Your task to perform on an android device: Clear the shopping cart on target. Add "razer thresher" to the cart on target Image 0: 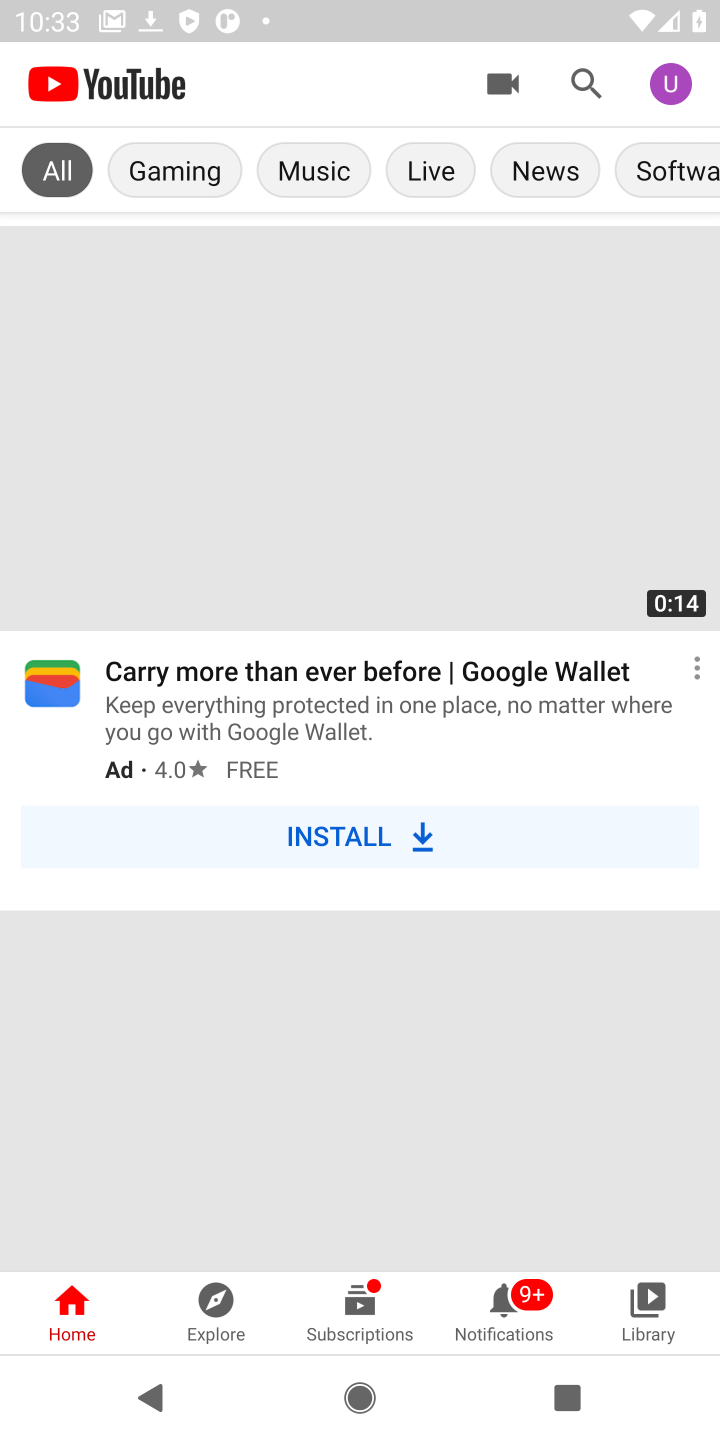
Step 0: press home button
Your task to perform on an android device: Clear the shopping cart on target. Add "razer thresher" to the cart on target Image 1: 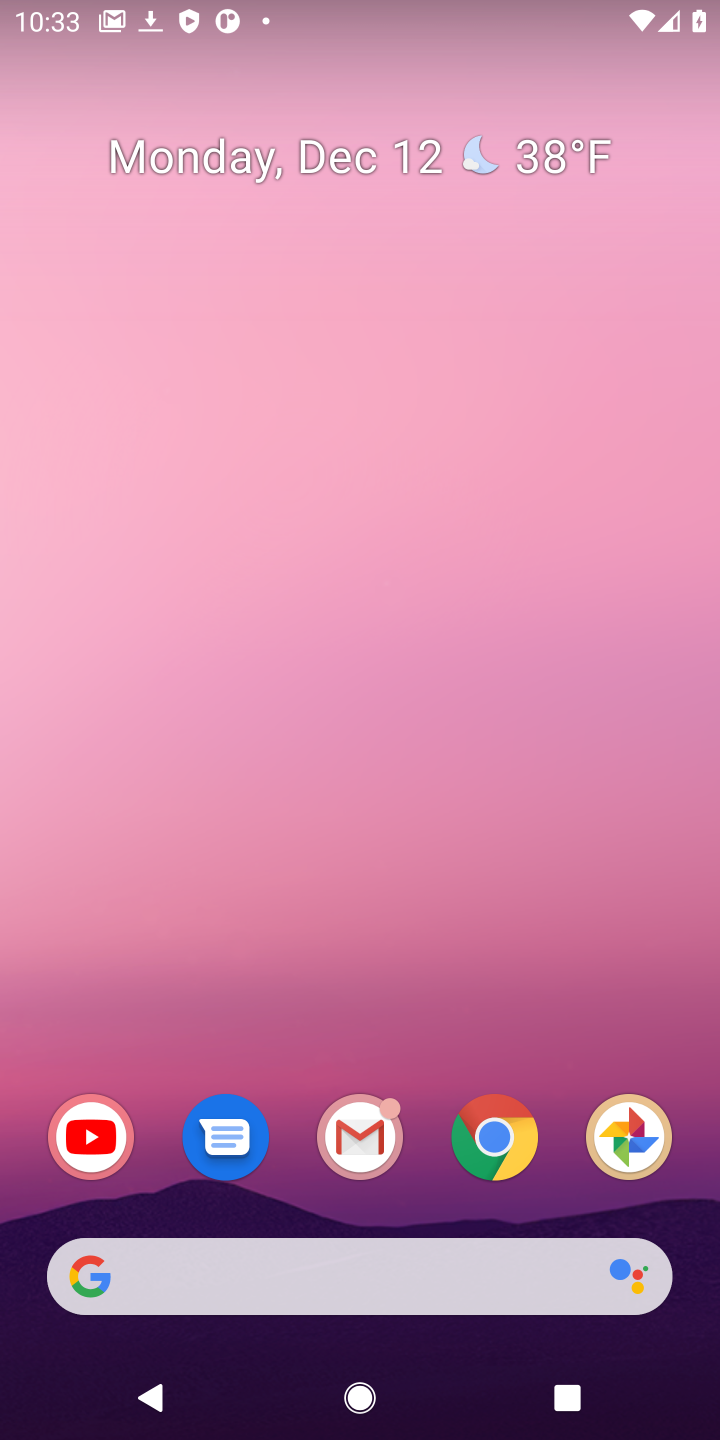
Step 1: click (483, 1261)
Your task to perform on an android device: Clear the shopping cart on target. Add "razer thresher" to the cart on target Image 2: 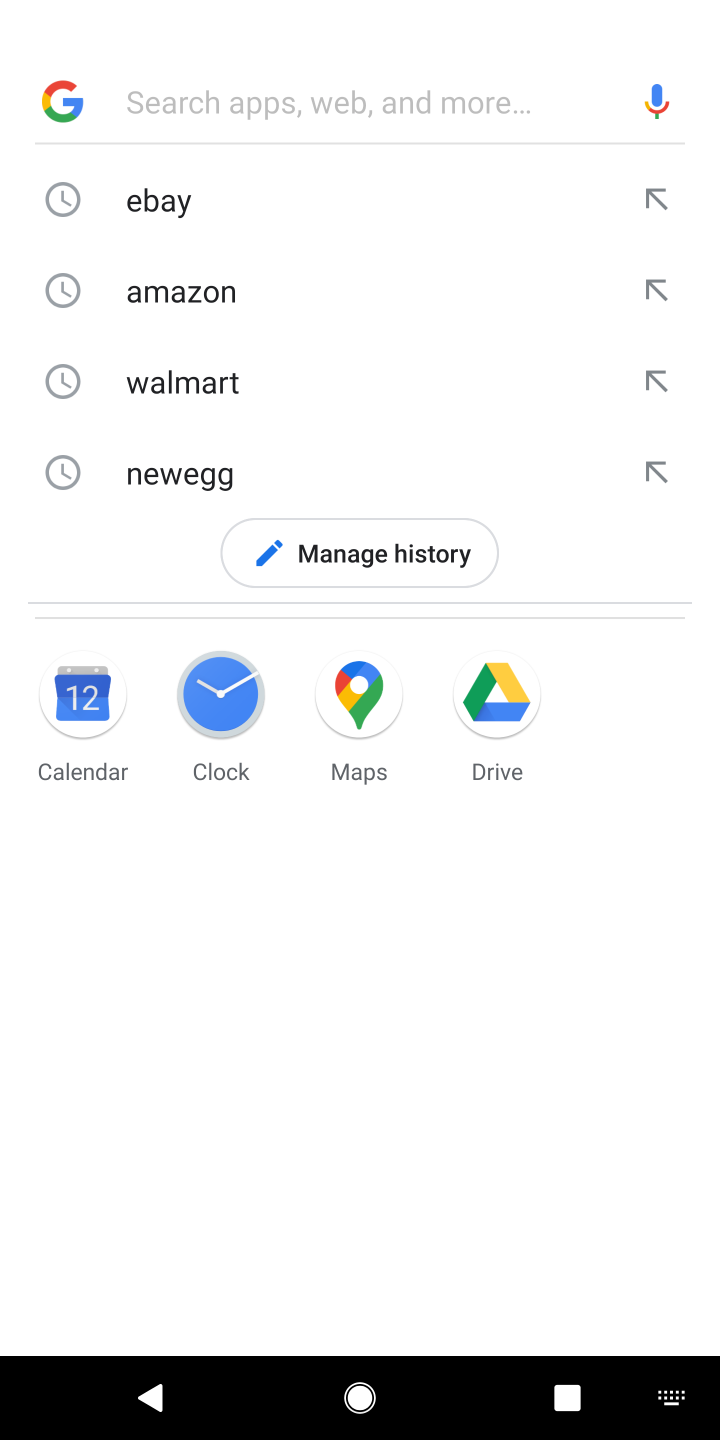
Step 2: type "target"
Your task to perform on an android device: Clear the shopping cart on target. Add "razer thresher" to the cart on target Image 3: 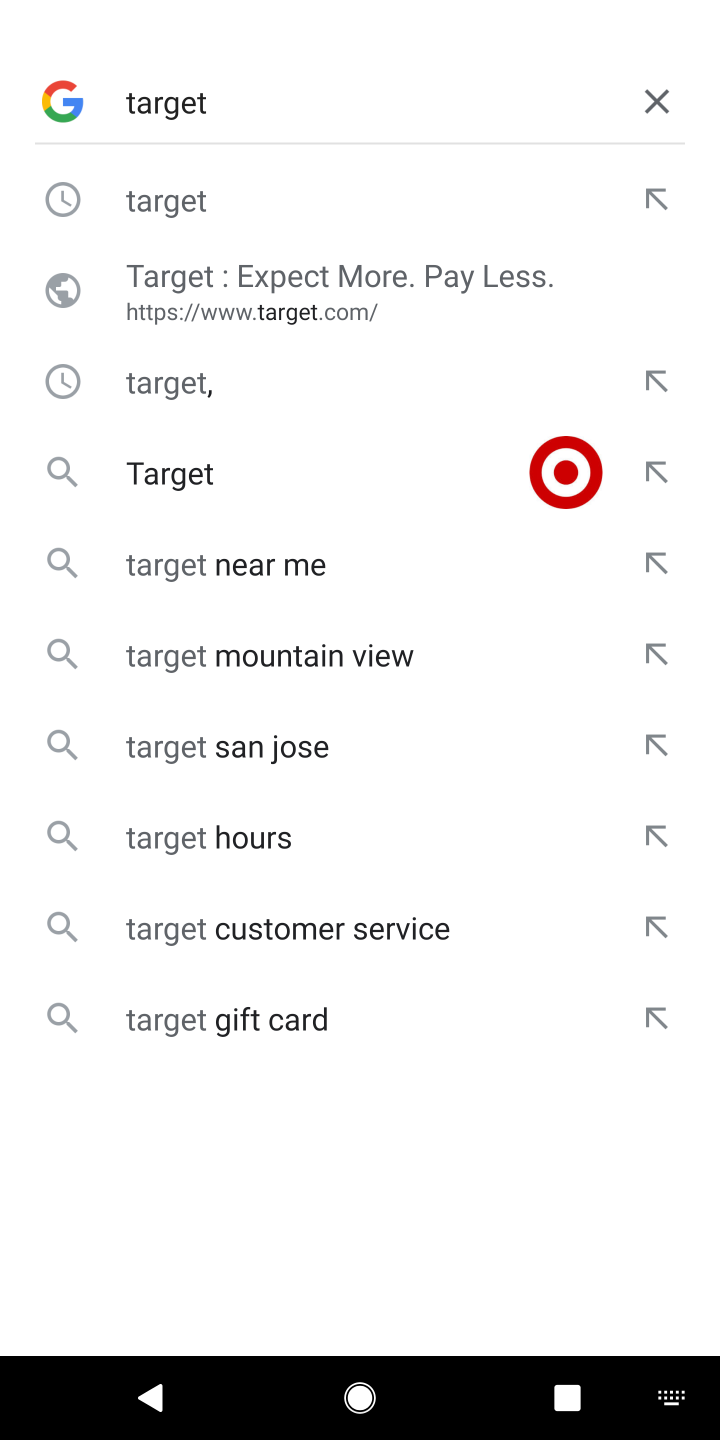
Step 3: click (275, 467)
Your task to perform on an android device: Clear the shopping cart on target. Add "razer thresher" to the cart on target Image 4: 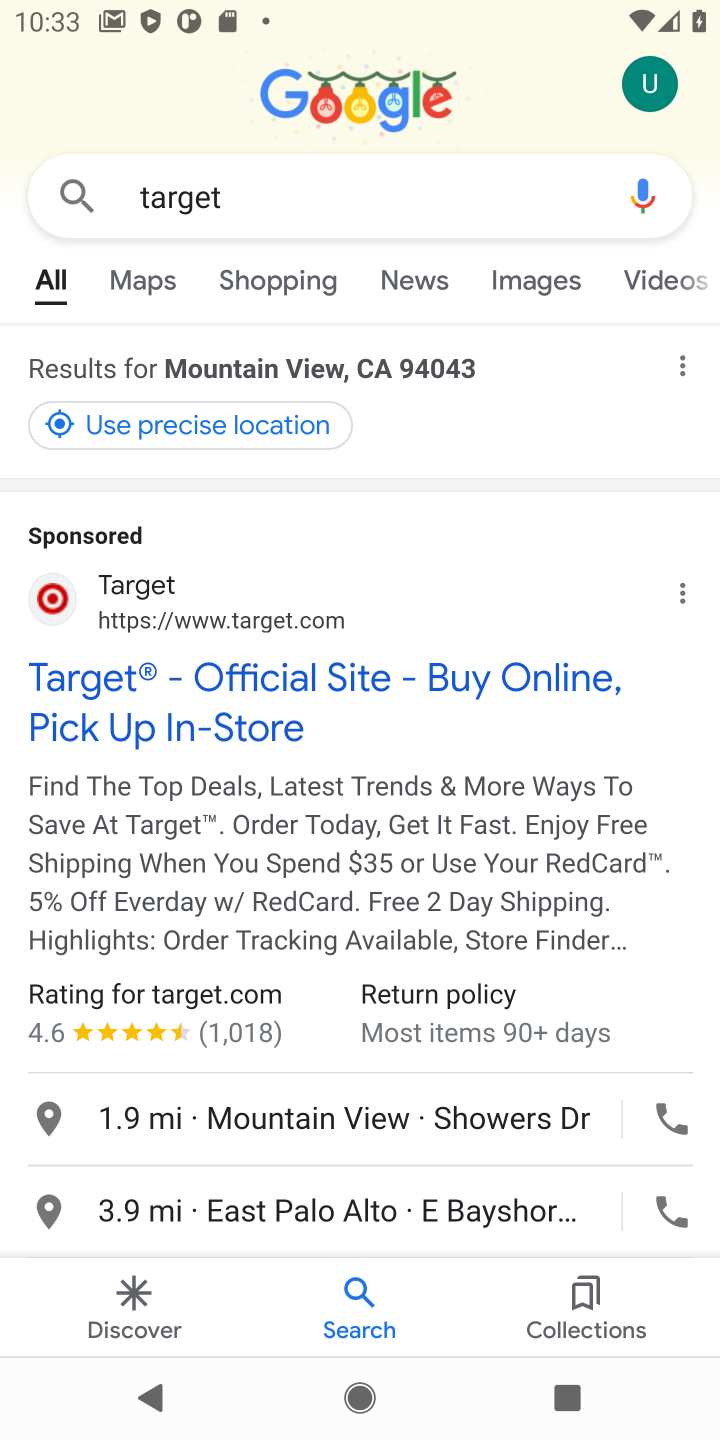
Step 4: click (198, 668)
Your task to perform on an android device: Clear the shopping cart on target. Add "razer thresher" to the cart on target Image 5: 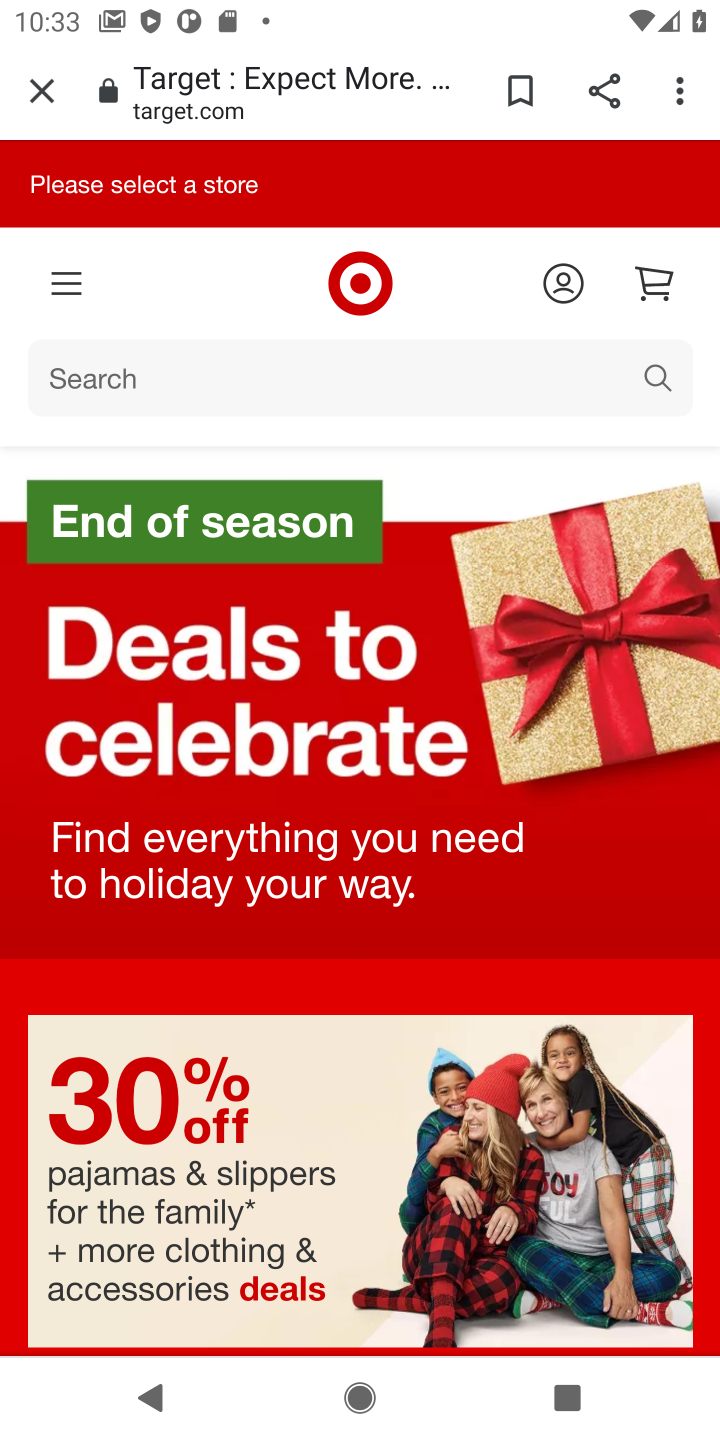
Step 5: click (202, 392)
Your task to perform on an android device: Clear the shopping cart on target. Add "razer thresher" to the cart on target Image 6: 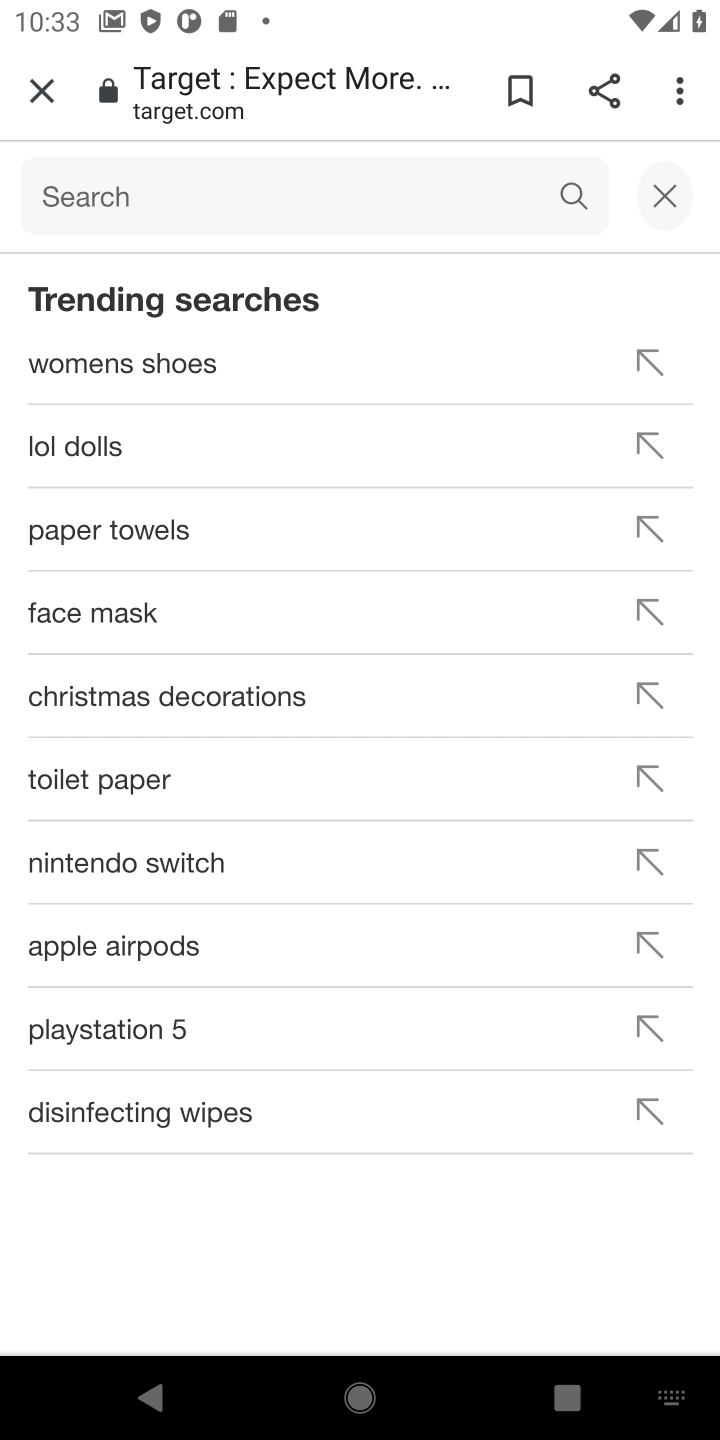
Step 6: type "razer thresher"
Your task to perform on an android device: Clear the shopping cart on target. Add "razer thresher" to the cart on target Image 7: 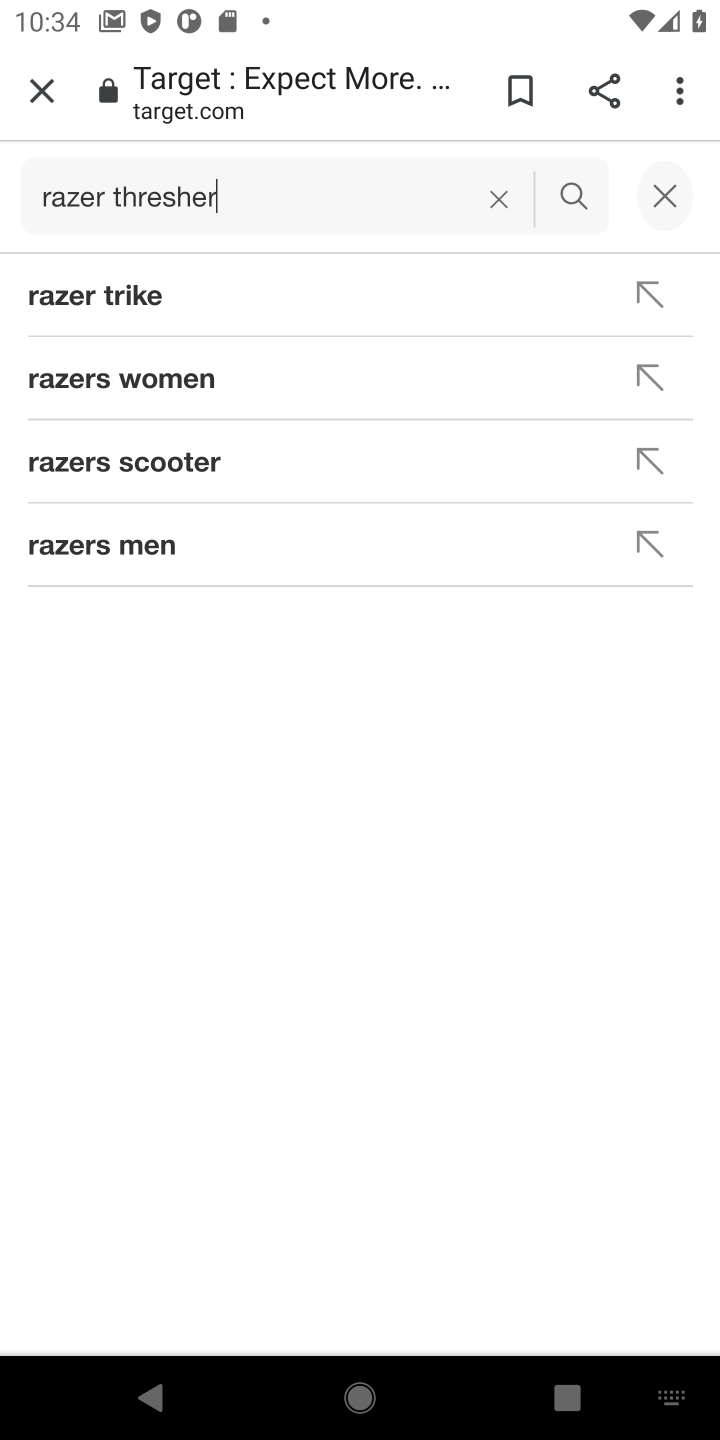
Step 7: click (593, 199)
Your task to perform on an android device: Clear the shopping cart on target. Add "razer thresher" to the cart on target Image 8: 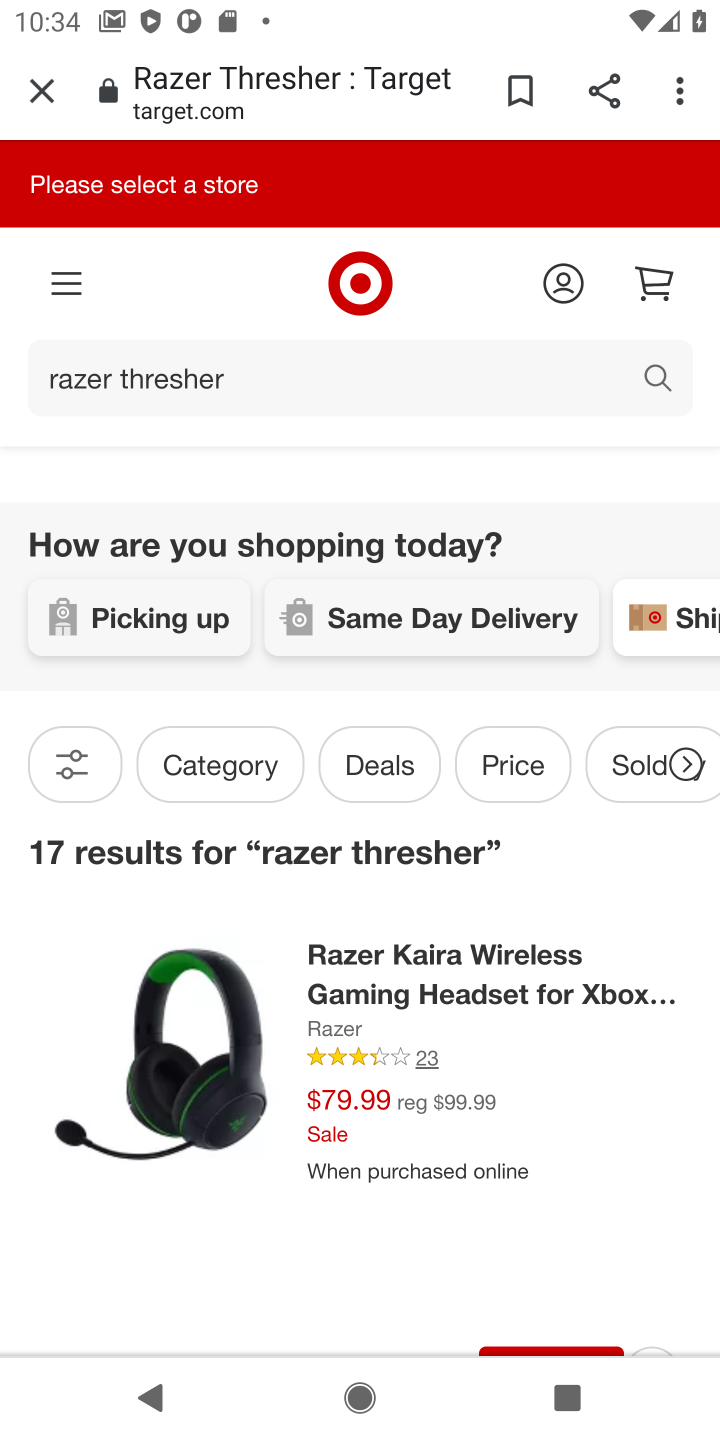
Step 8: click (498, 1353)
Your task to perform on an android device: Clear the shopping cart on target. Add "razer thresher" to the cart on target Image 9: 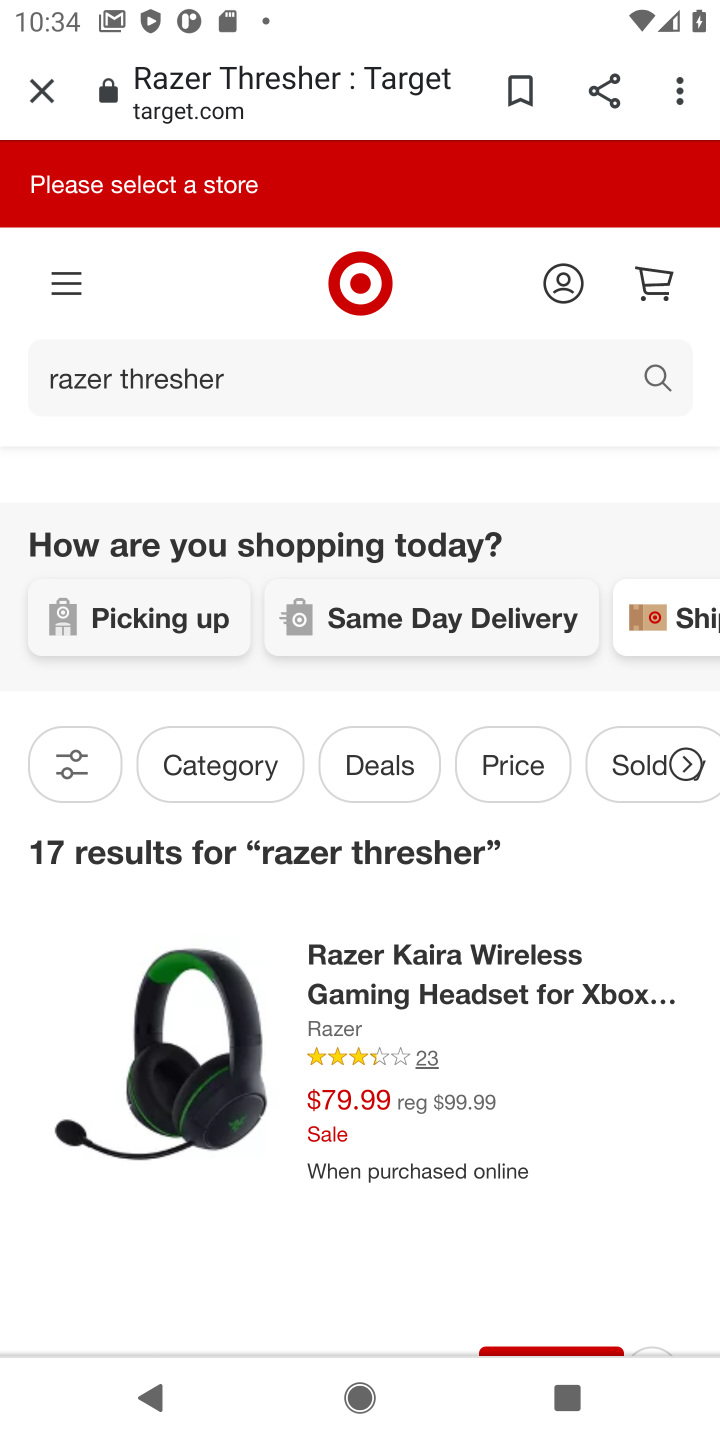
Step 9: drag from (551, 1046) to (585, 561)
Your task to perform on an android device: Clear the shopping cart on target. Add "razer thresher" to the cart on target Image 10: 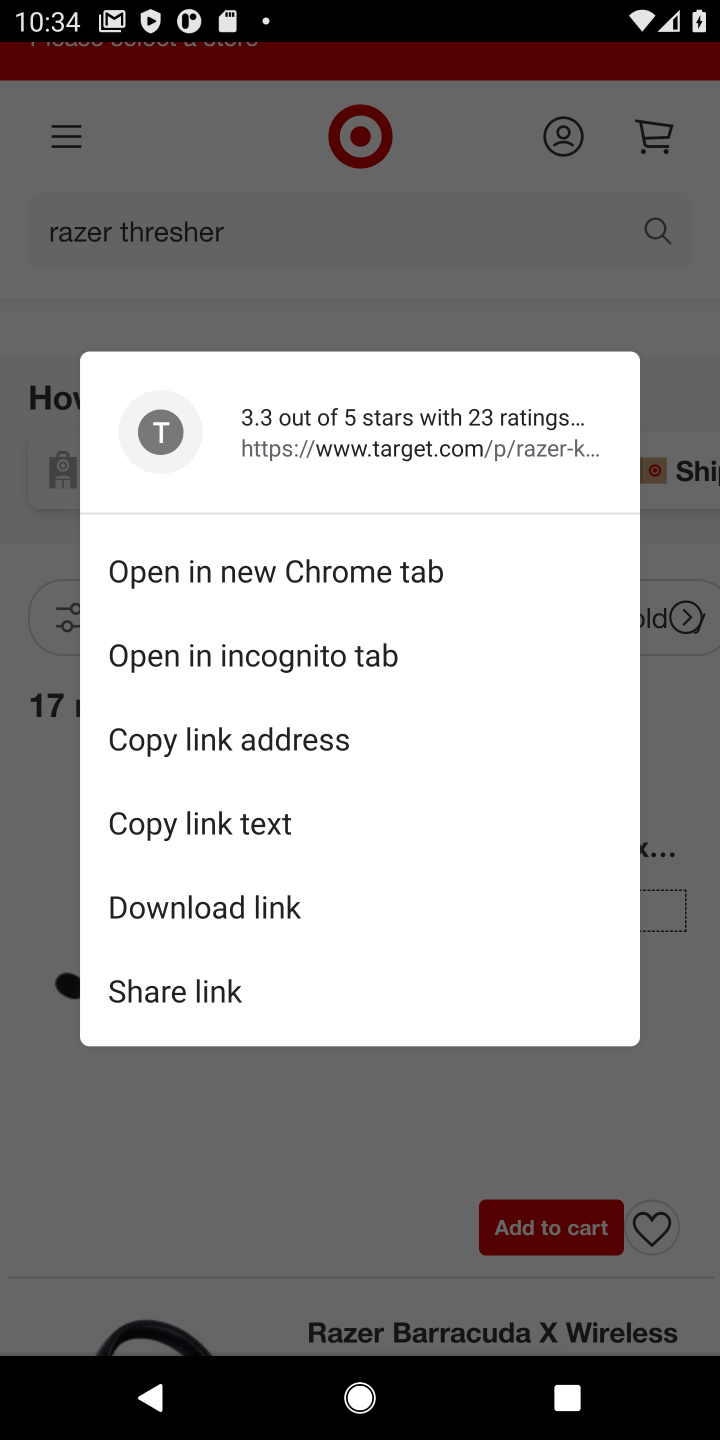
Step 10: click (344, 1226)
Your task to perform on an android device: Clear the shopping cart on target. Add "razer thresher" to the cart on target Image 11: 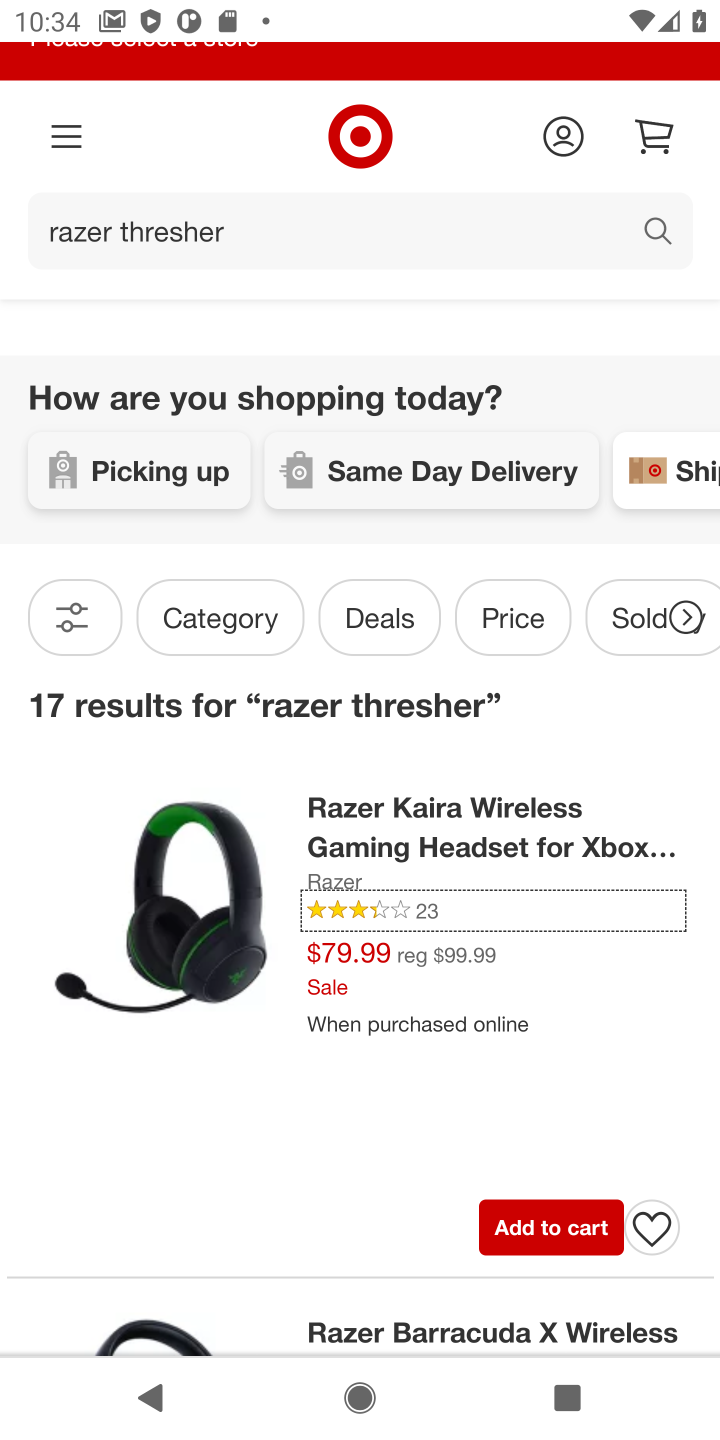
Step 11: click (519, 1224)
Your task to perform on an android device: Clear the shopping cart on target. Add "razer thresher" to the cart on target Image 12: 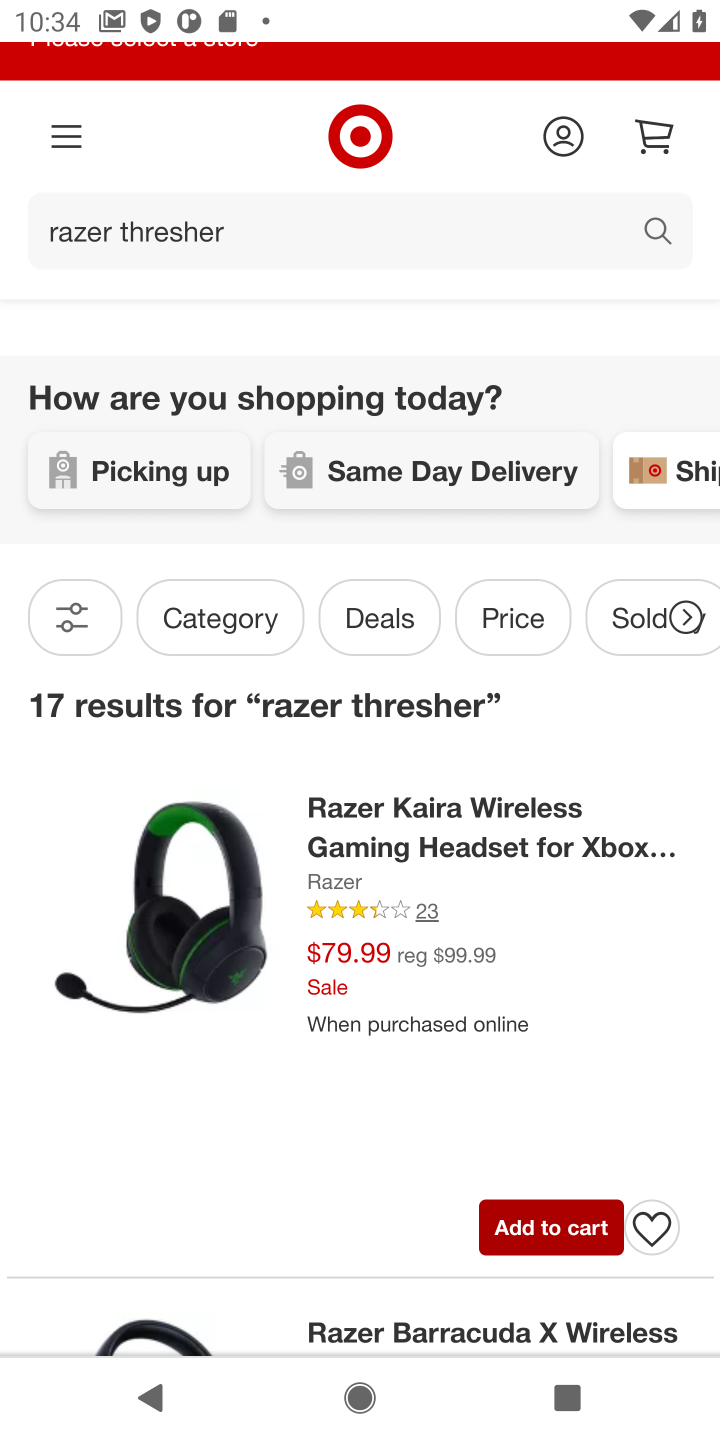
Step 12: task complete